Your task to perform on an android device: open chrome privacy settings Image 0: 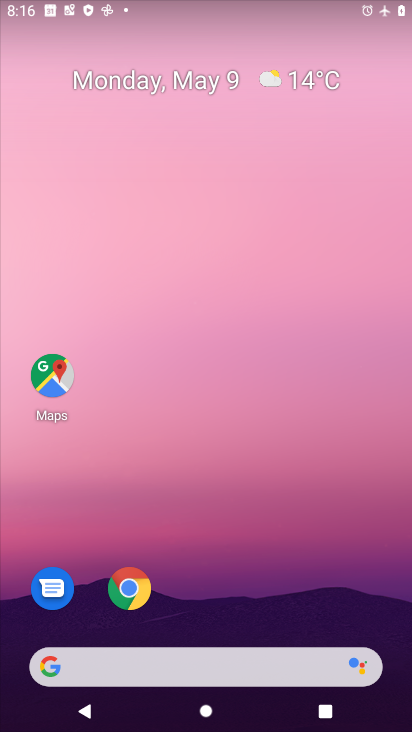
Step 0: drag from (345, 610) to (228, 61)
Your task to perform on an android device: open chrome privacy settings Image 1: 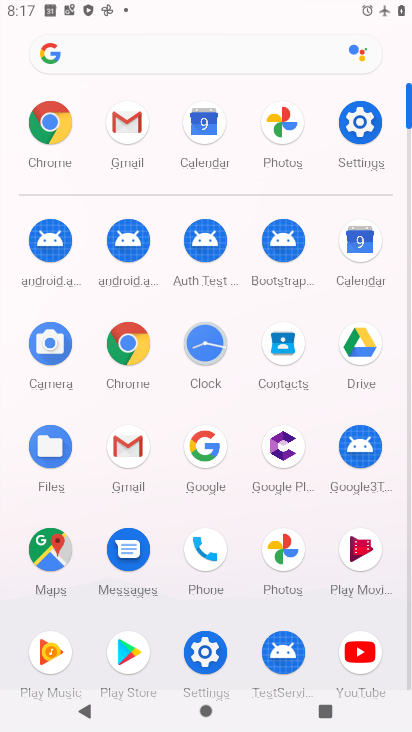
Step 1: click (119, 363)
Your task to perform on an android device: open chrome privacy settings Image 2: 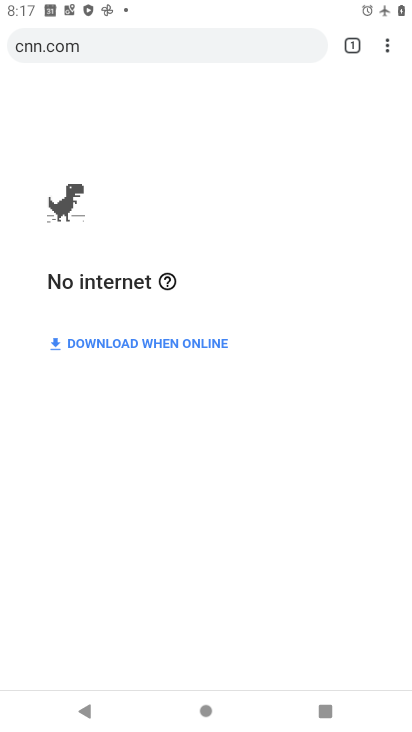
Step 2: click (387, 43)
Your task to perform on an android device: open chrome privacy settings Image 3: 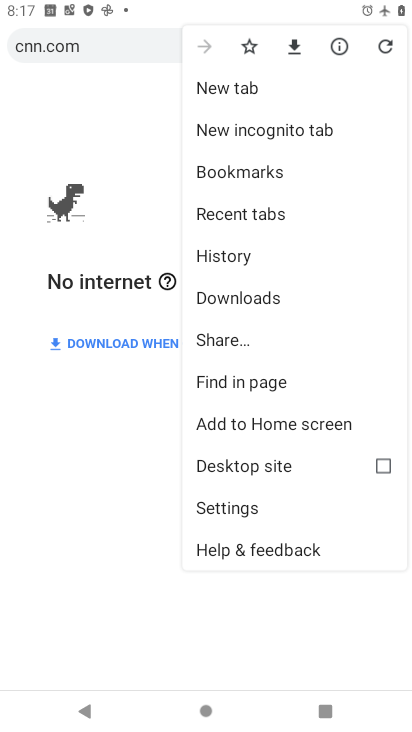
Step 3: click (275, 509)
Your task to perform on an android device: open chrome privacy settings Image 4: 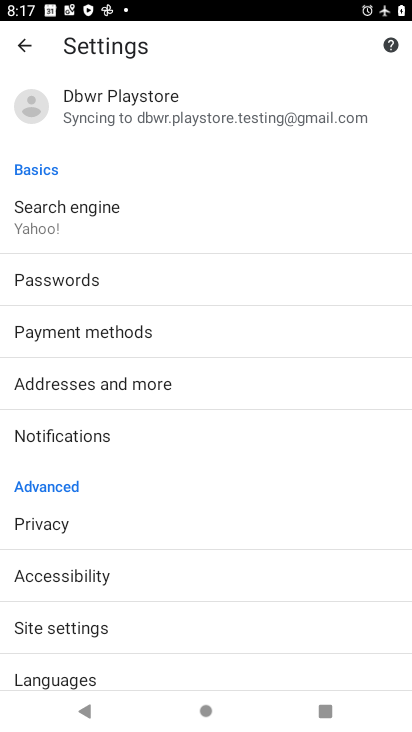
Step 4: click (225, 532)
Your task to perform on an android device: open chrome privacy settings Image 5: 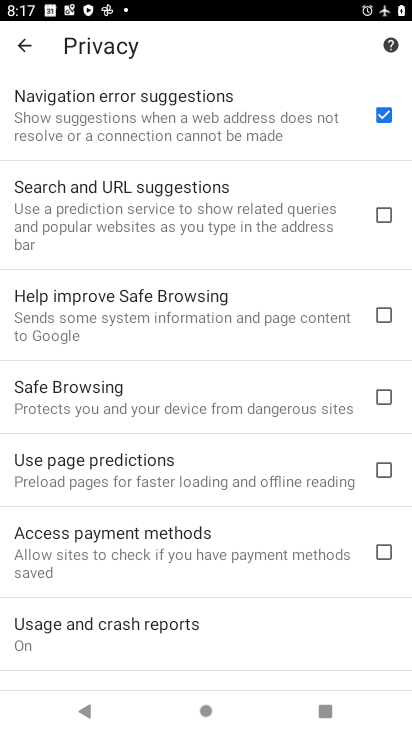
Step 5: task complete